Your task to perform on an android device: Is it going to rain today? Image 0: 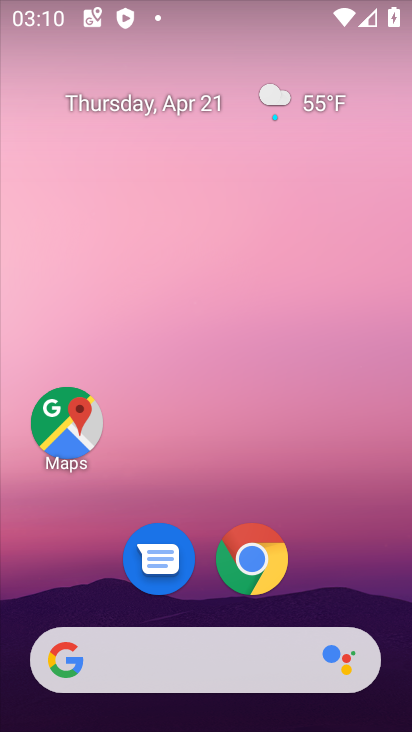
Step 0: click (315, 103)
Your task to perform on an android device: Is it going to rain today? Image 1: 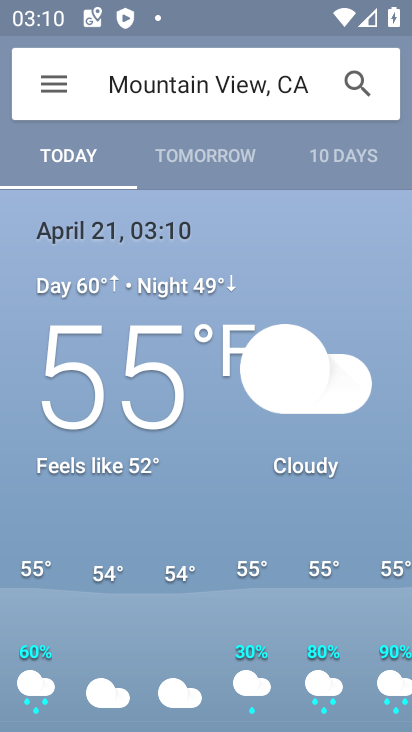
Step 1: task complete